Your task to perform on an android device: turn off priority inbox in the gmail app Image 0: 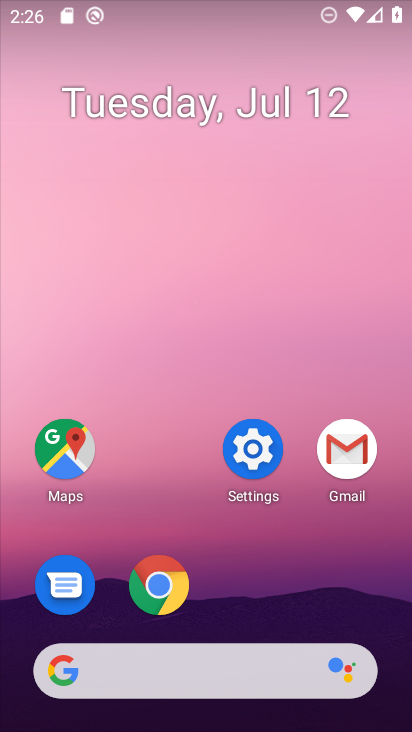
Step 0: click (352, 445)
Your task to perform on an android device: turn off priority inbox in the gmail app Image 1: 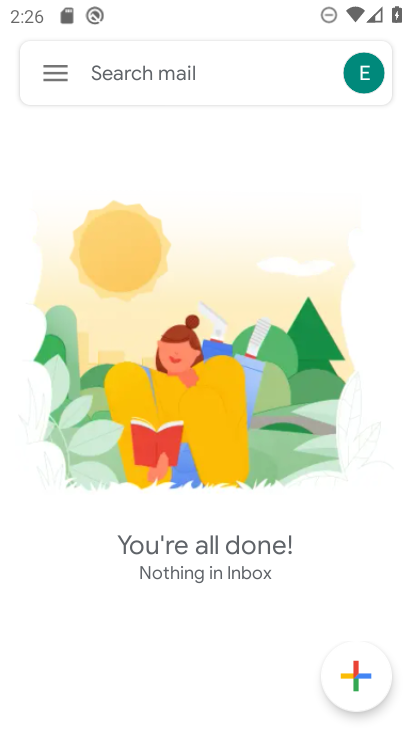
Step 1: click (47, 66)
Your task to perform on an android device: turn off priority inbox in the gmail app Image 2: 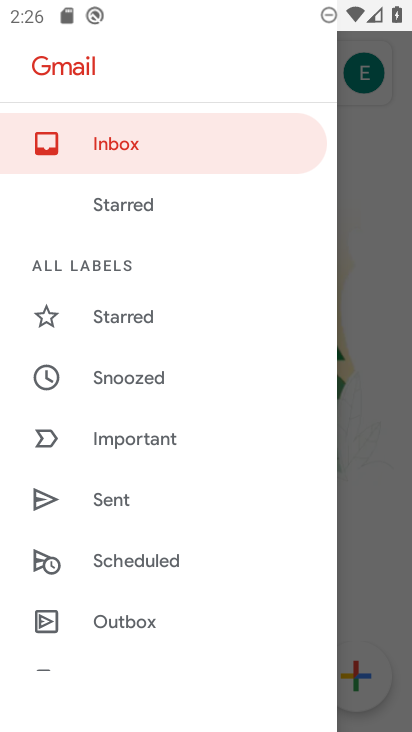
Step 2: drag from (224, 608) to (226, 188)
Your task to perform on an android device: turn off priority inbox in the gmail app Image 3: 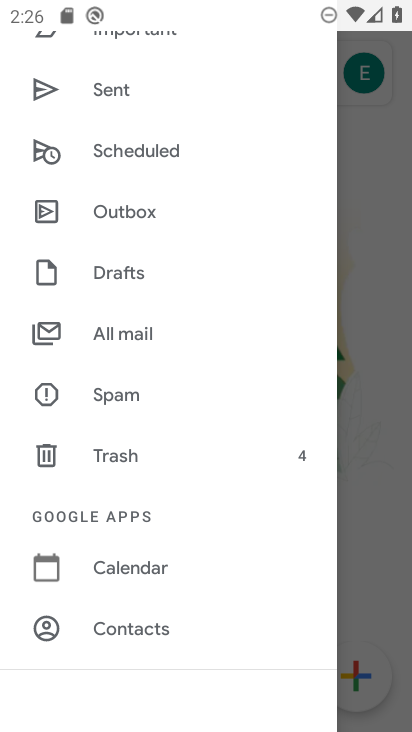
Step 3: drag from (233, 610) to (232, 313)
Your task to perform on an android device: turn off priority inbox in the gmail app Image 4: 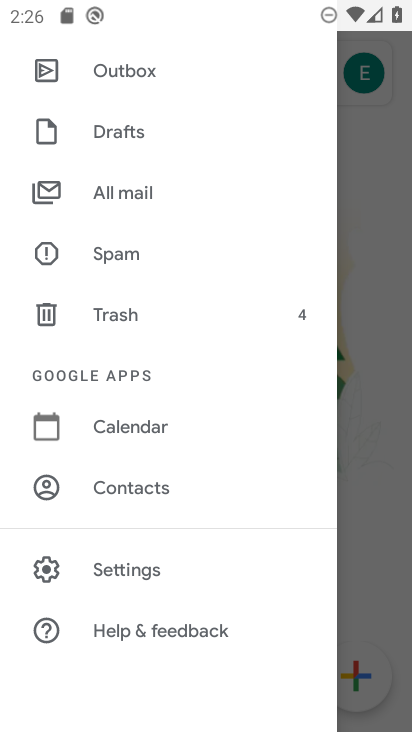
Step 4: click (116, 571)
Your task to perform on an android device: turn off priority inbox in the gmail app Image 5: 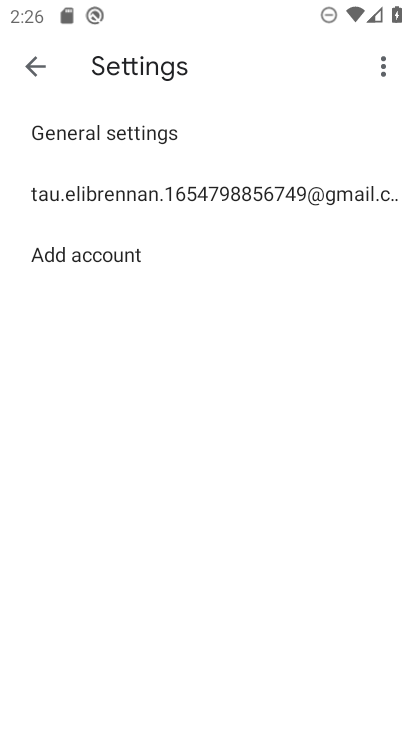
Step 5: click (78, 181)
Your task to perform on an android device: turn off priority inbox in the gmail app Image 6: 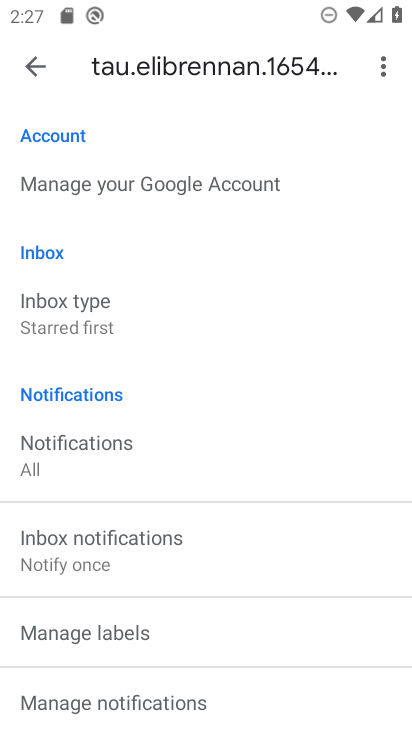
Step 6: click (53, 308)
Your task to perform on an android device: turn off priority inbox in the gmail app Image 7: 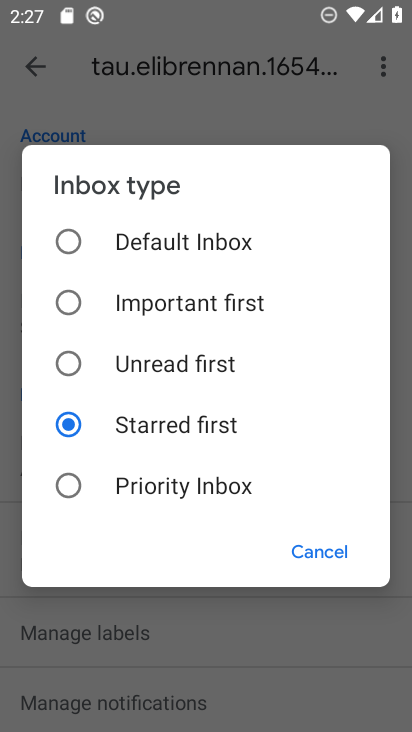
Step 7: task complete